Your task to perform on an android device: open wifi settings Image 0: 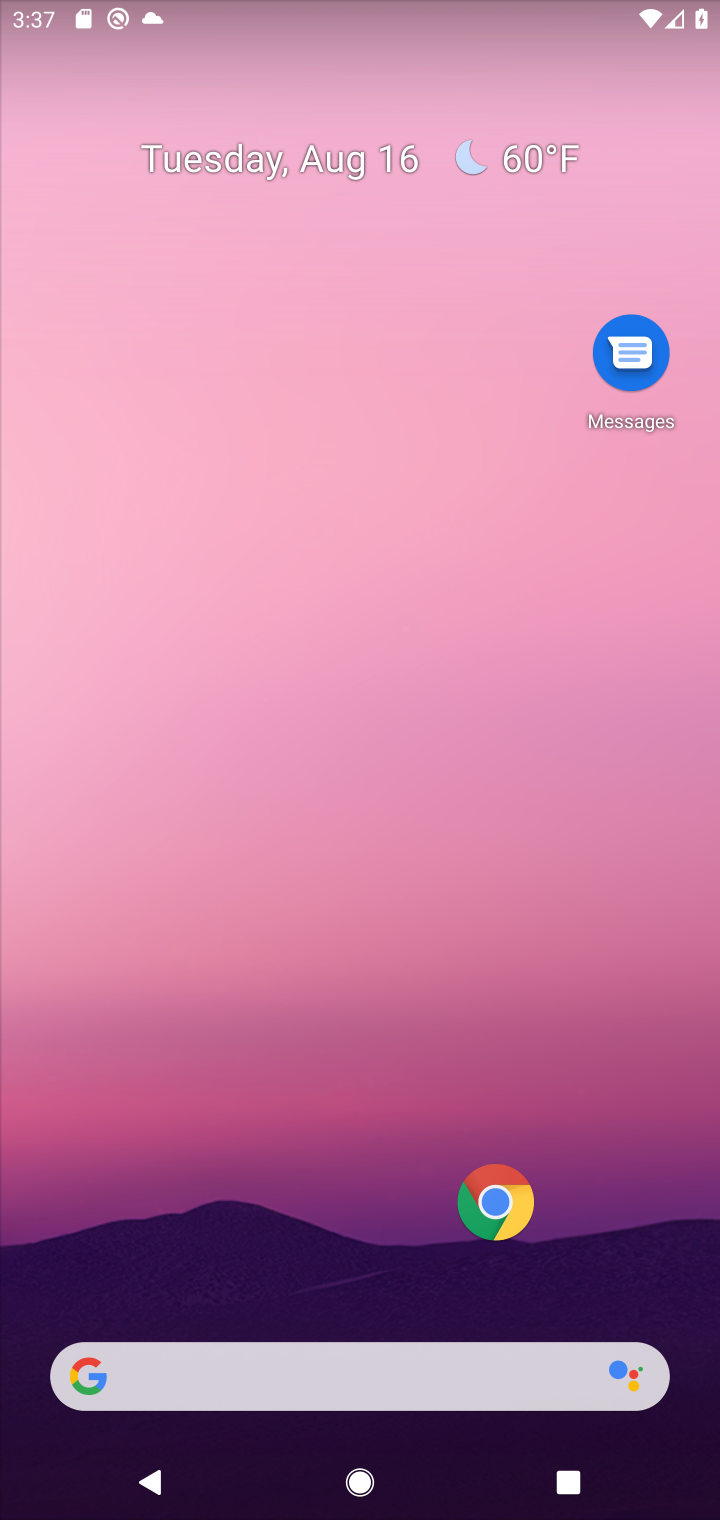
Step 0: press home button
Your task to perform on an android device: open wifi settings Image 1: 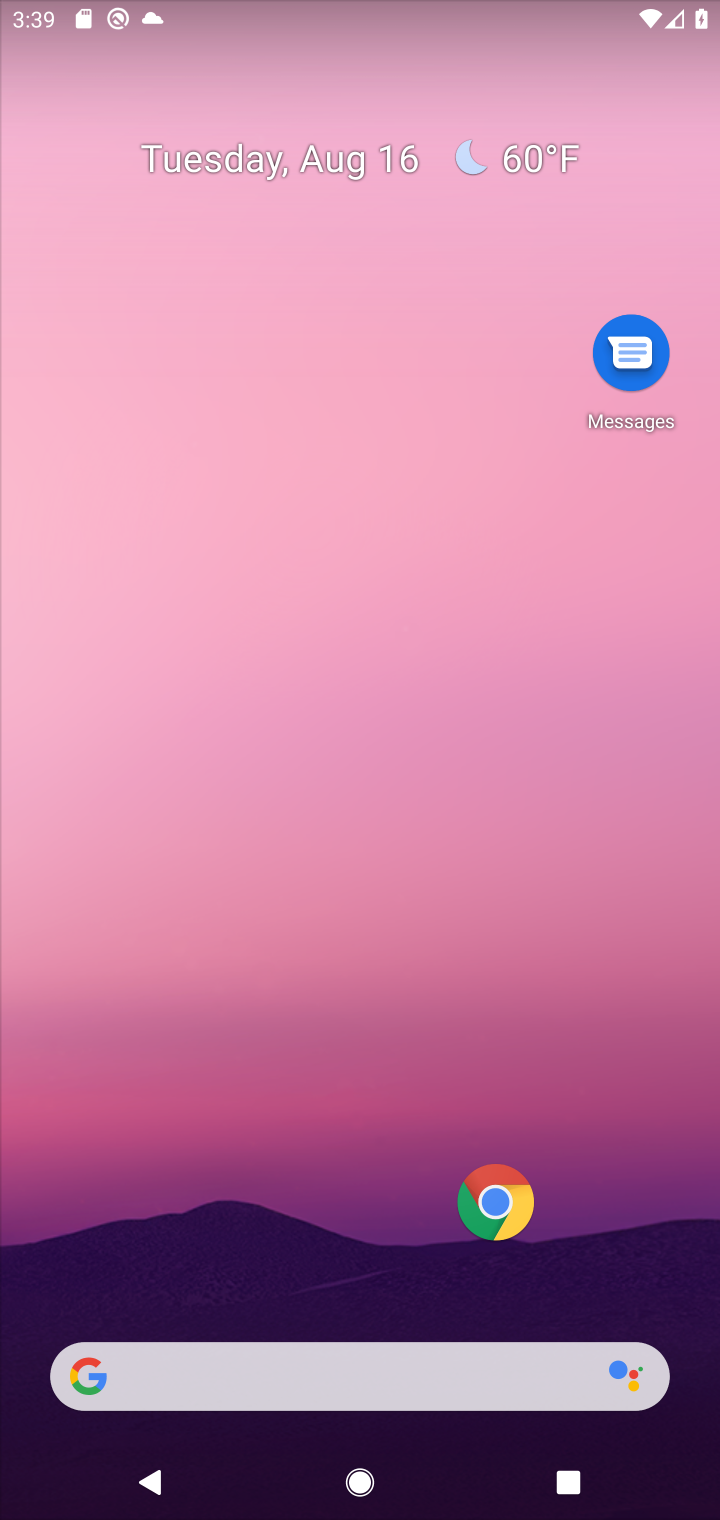
Step 1: drag from (97, 895) to (399, 93)
Your task to perform on an android device: open wifi settings Image 2: 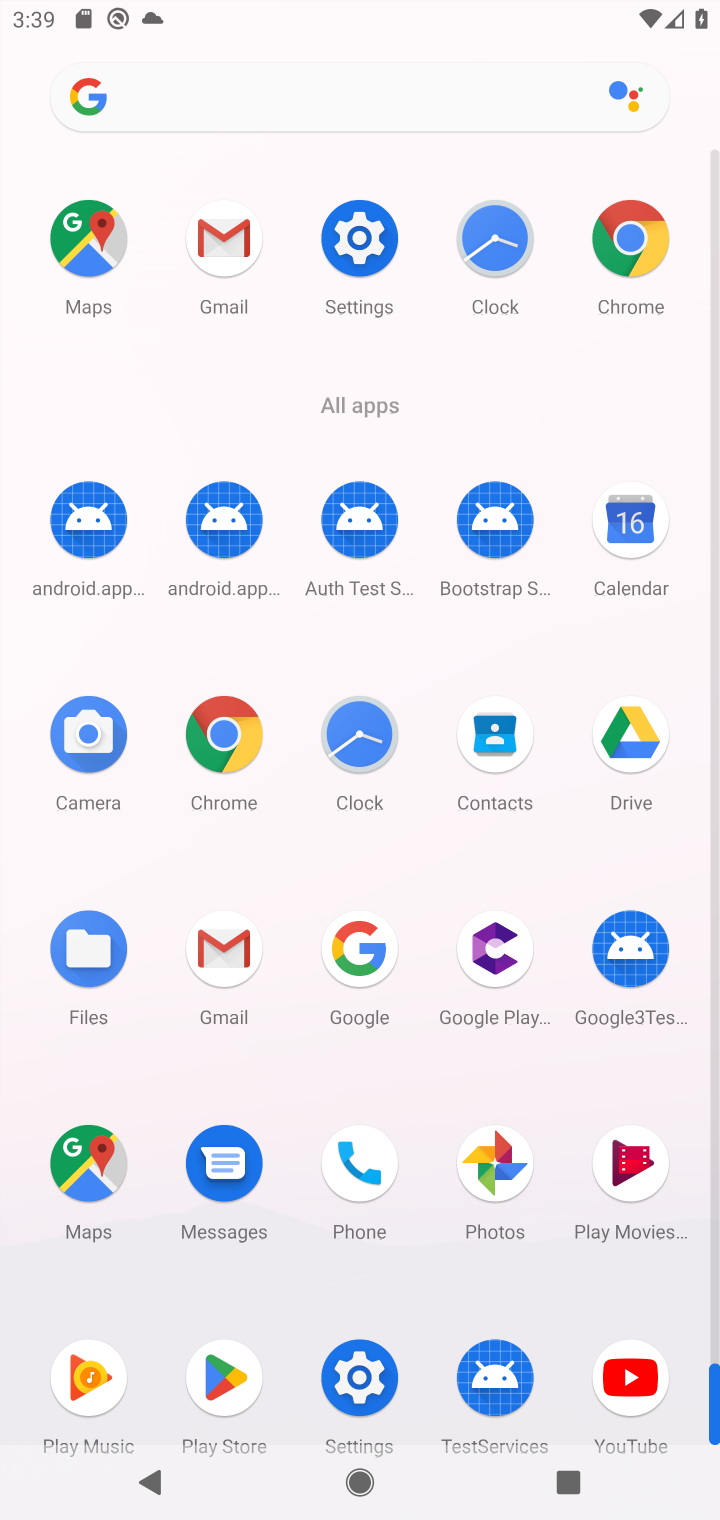
Step 2: click (367, 242)
Your task to perform on an android device: open wifi settings Image 3: 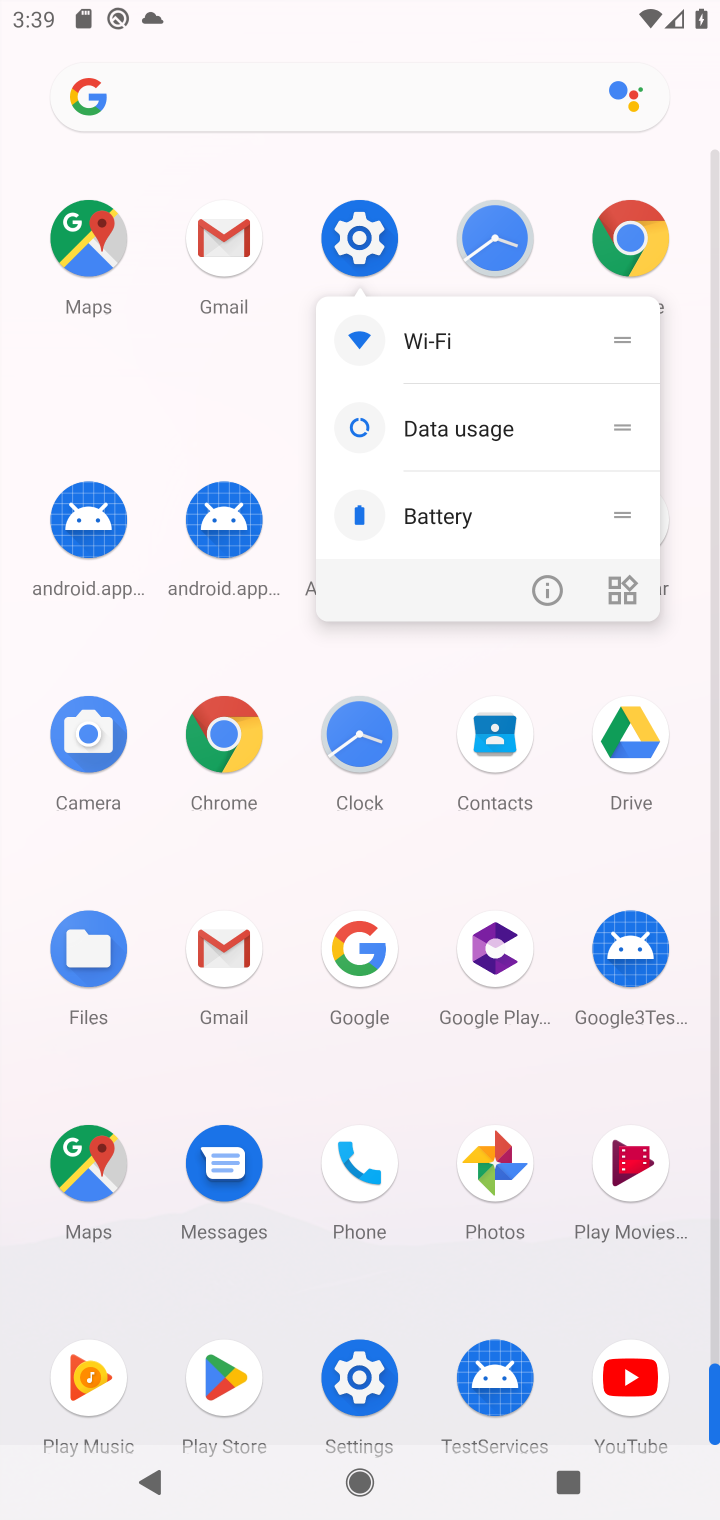
Step 3: click (416, 327)
Your task to perform on an android device: open wifi settings Image 4: 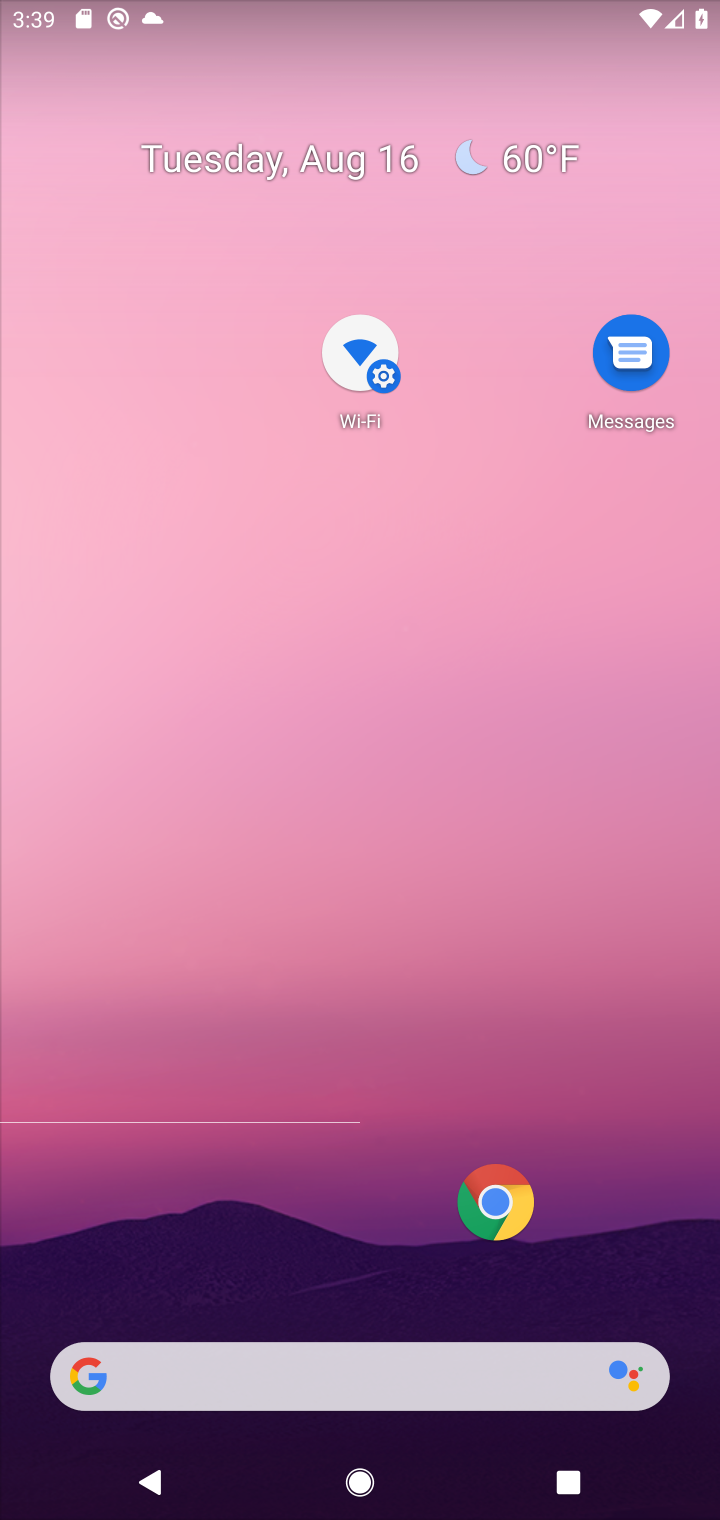
Step 4: click (376, 379)
Your task to perform on an android device: open wifi settings Image 5: 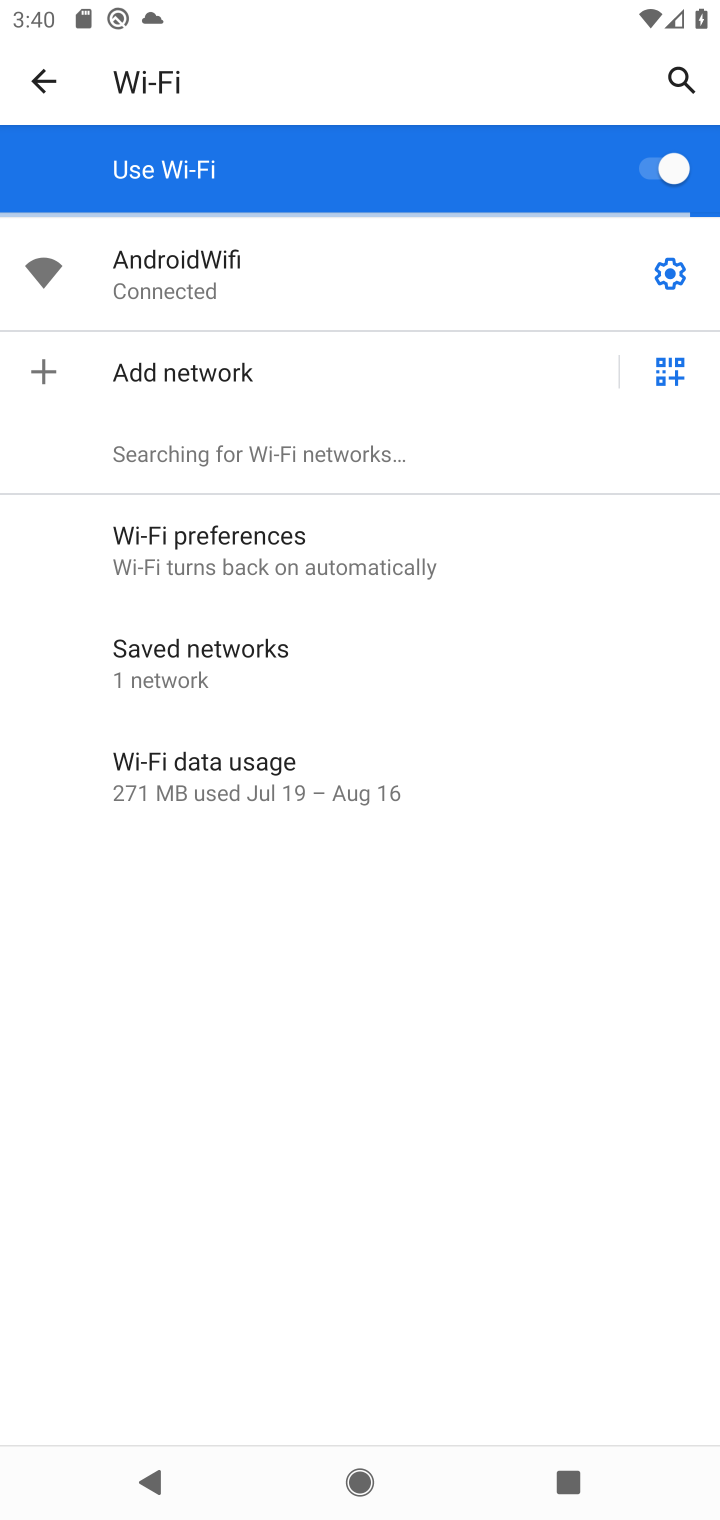
Step 5: click (672, 272)
Your task to perform on an android device: open wifi settings Image 6: 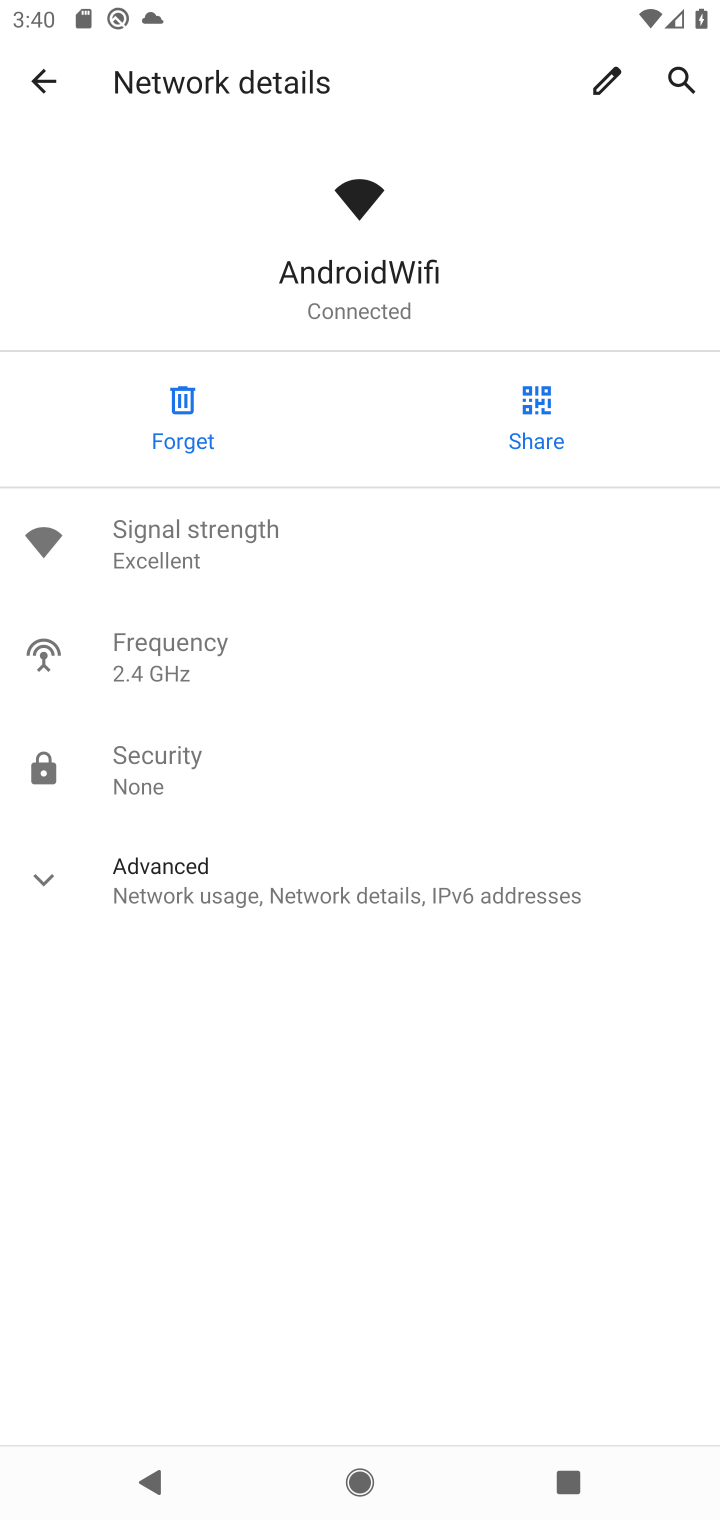
Step 6: task complete